Your task to perform on an android device: turn off data saver in the chrome app Image 0: 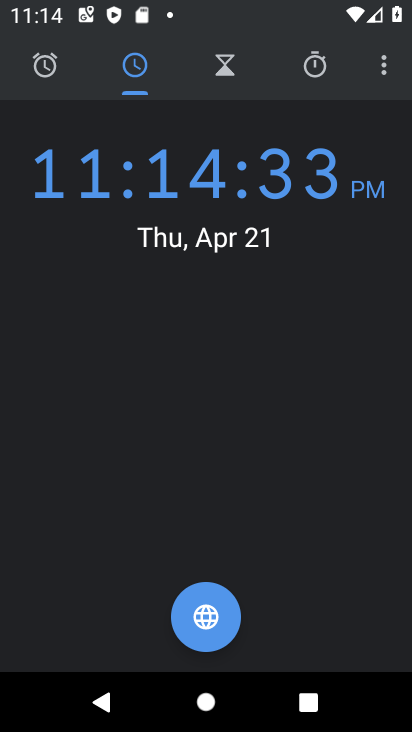
Step 0: press home button
Your task to perform on an android device: turn off data saver in the chrome app Image 1: 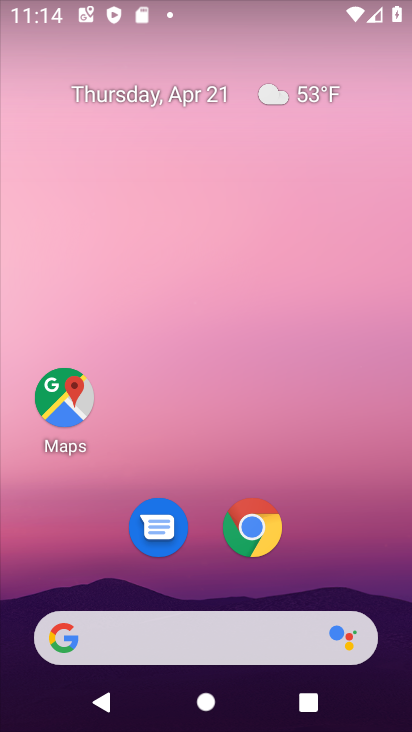
Step 1: drag from (347, 541) to (347, 116)
Your task to perform on an android device: turn off data saver in the chrome app Image 2: 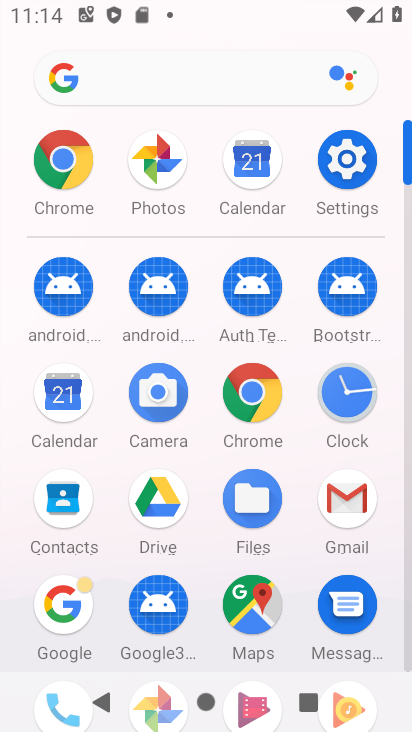
Step 2: click (262, 397)
Your task to perform on an android device: turn off data saver in the chrome app Image 3: 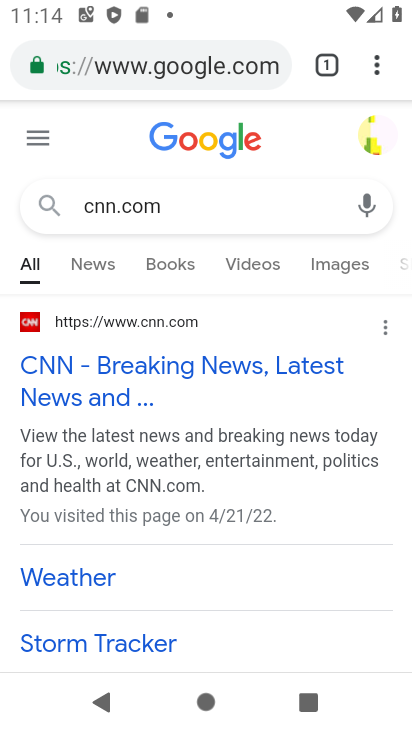
Step 3: click (377, 71)
Your task to perform on an android device: turn off data saver in the chrome app Image 4: 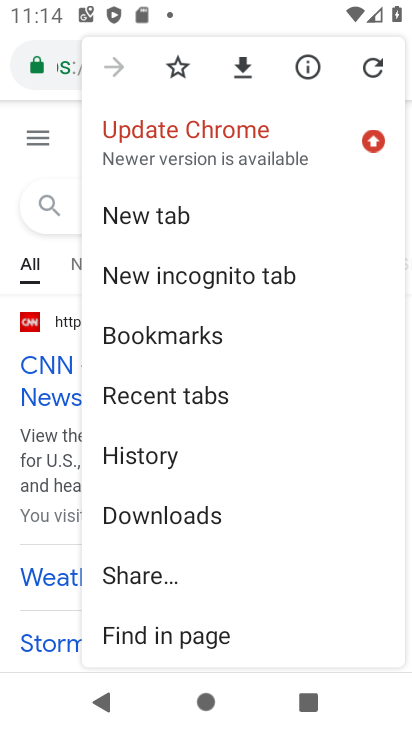
Step 4: drag from (336, 492) to (343, 396)
Your task to perform on an android device: turn off data saver in the chrome app Image 5: 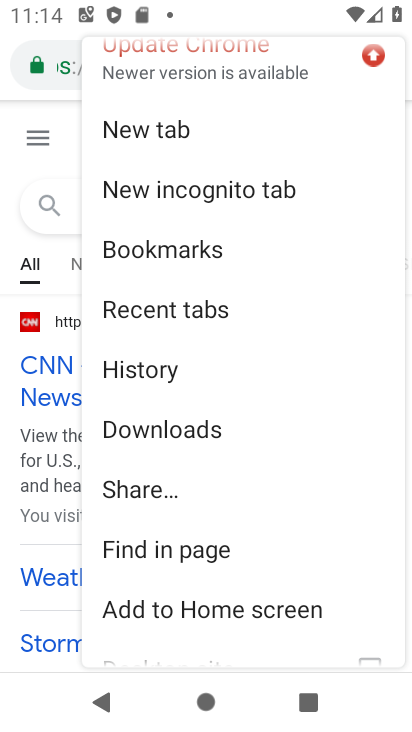
Step 5: drag from (330, 495) to (339, 366)
Your task to perform on an android device: turn off data saver in the chrome app Image 6: 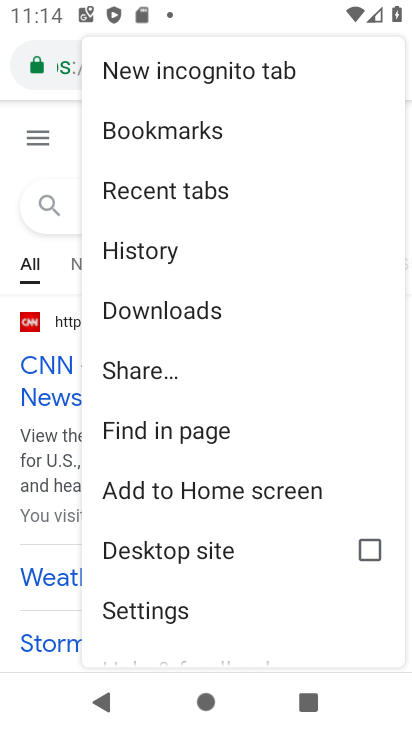
Step 6: drag from (315, 528) to (331, 389)
Your task to perform on an android device: turn off data saver in the chrome app Image 7: 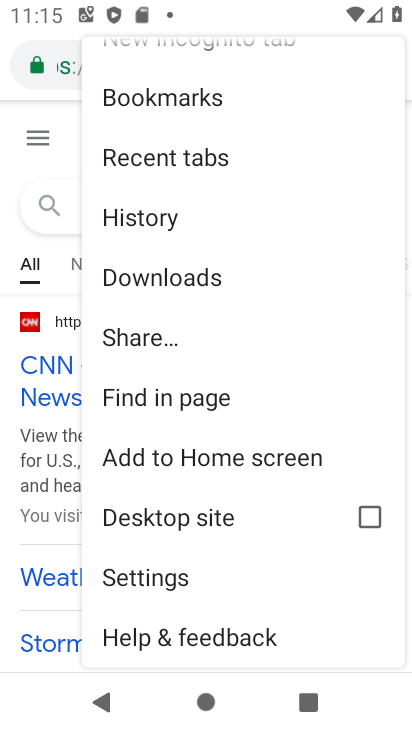
Step 7: click (180, 586)
Your task to perform on an android device: turn off data saver in the chrome app Image 8: 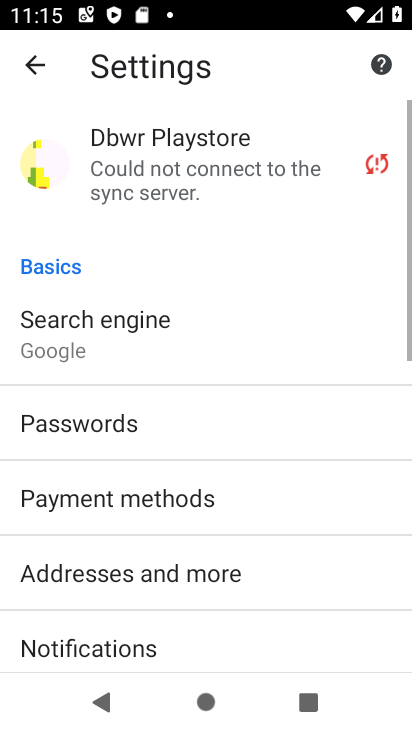
Step 8: drag from (317, 594) to (322, 481)
Your task to perform on an android device: turn off data saver in the chrome app Image 9: 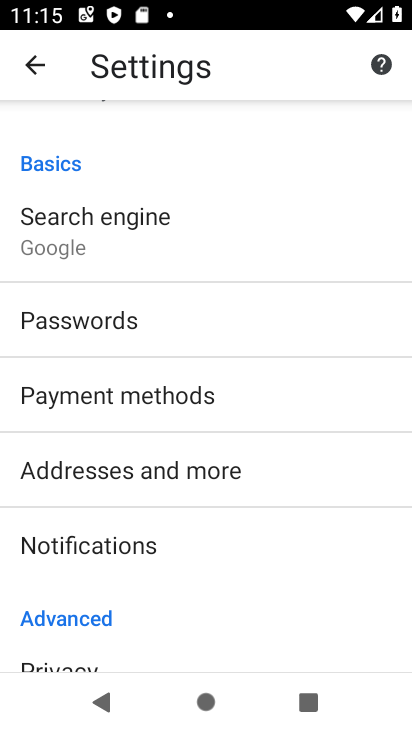
Step 9: drag from (316, 603) to (326, 456)
Your task to perform on an android device: turn off data saver in the chrome app Image 10: 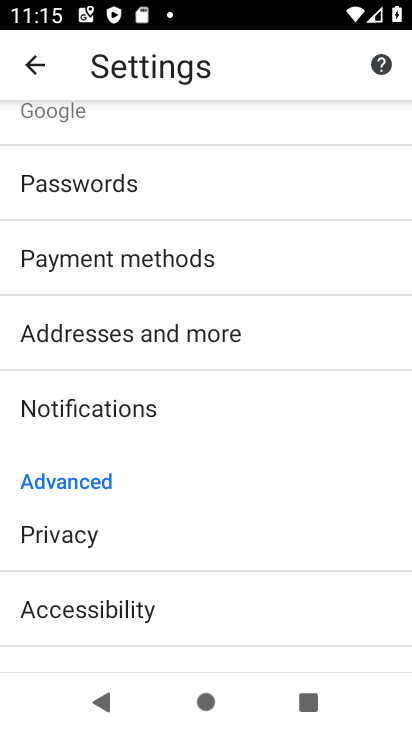
Step 10: drag from (300, 606) to (303, 482)
Your task to perform on an android device: turn off data saver in the chrome app Image 11: 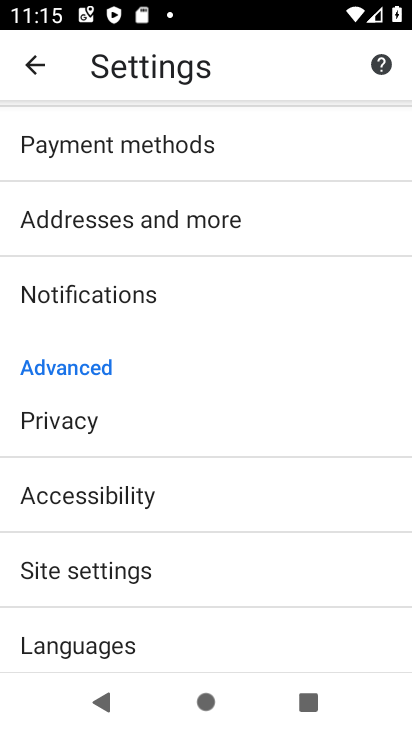
Step 11: drag from (293, 589) to (303, 487)
Your task to perform on an android device: turn off data saver in the chrome app Image 12: 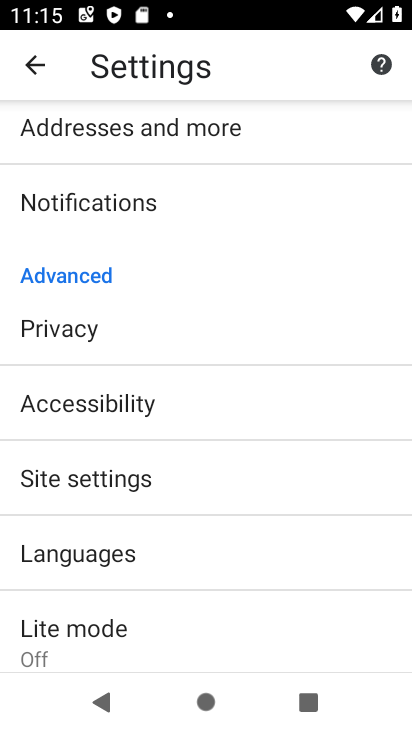
Step 12: drag from (282, 611) to (294, 493)
Your task to perform on an android device: turn off data saver in the chrome app Image 13: 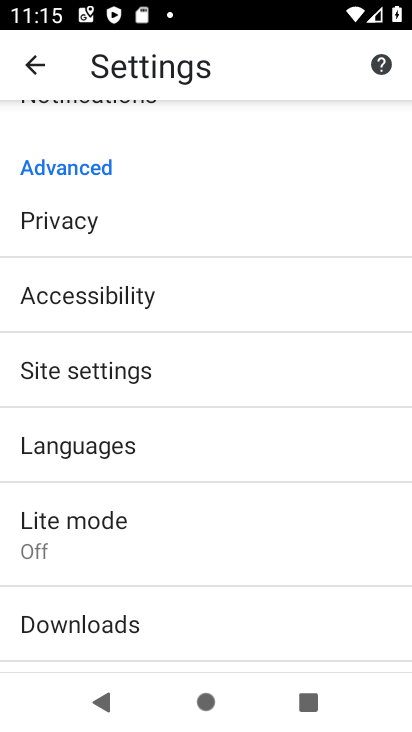
Step 13: drag from (279, 608) to (282, 446)
Your task to perform on an android device: turn off data saver in the chrome app Image 14: 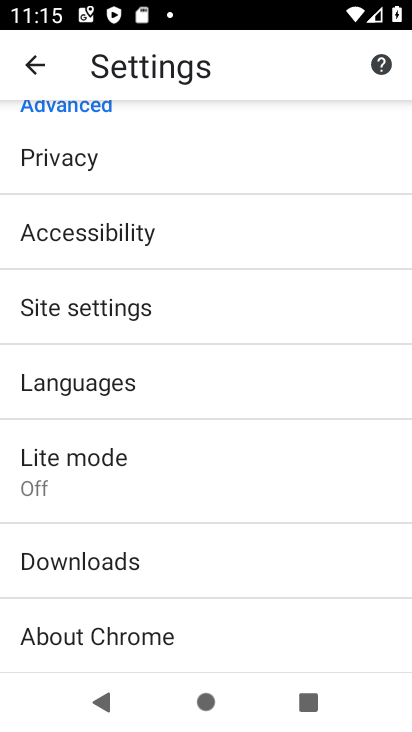
Step 14: click (271, 478)
Your task to perform on an android device: turn off data saver in the chrome app Image 15: 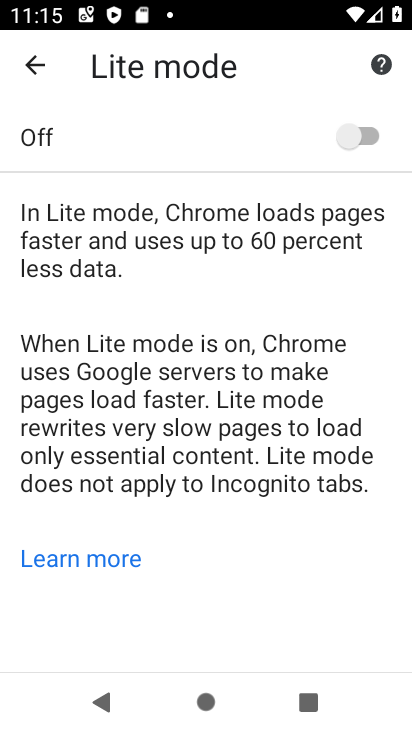
Step 15: task complete